Your task to perform on an android device: open chrome and create a bookmark for the current page Image 0: 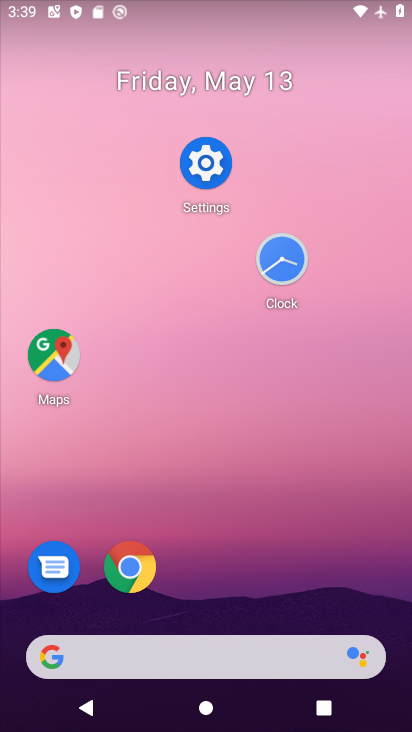
Step 0: click (146, 555)
Your task to perform on an android device: open chrome and create a bookmark for the current page Image 1: 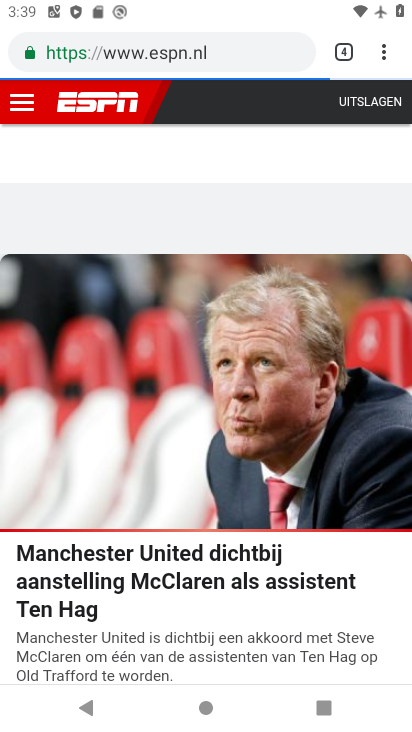
Step 1: task complete